Your task to perform on an android device: turn off improve location accuracy Image 0: 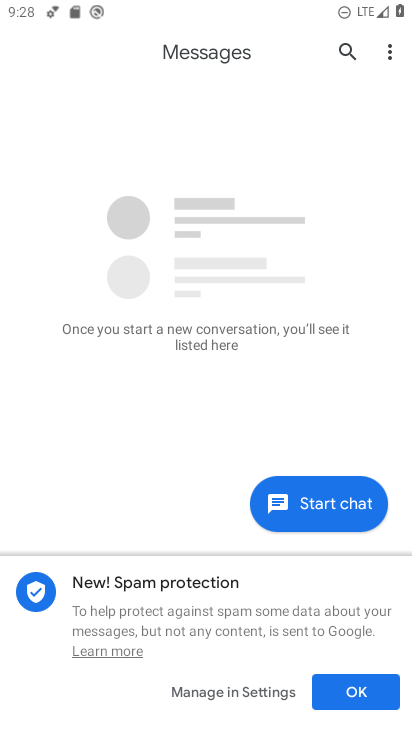
Step 0: press home button
Your task to perform on an android device: turn off improve location accuracy Image 1: 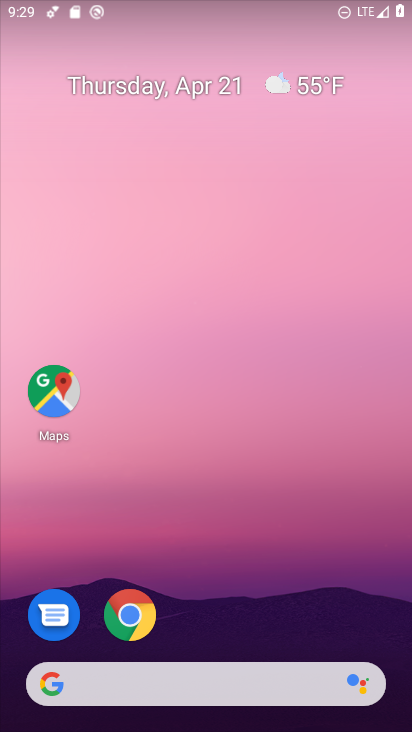
Step 1: drag from (334, 502) to (381, 29)
Your task to perform on an android device: turn off improve location accuracy Image 2: 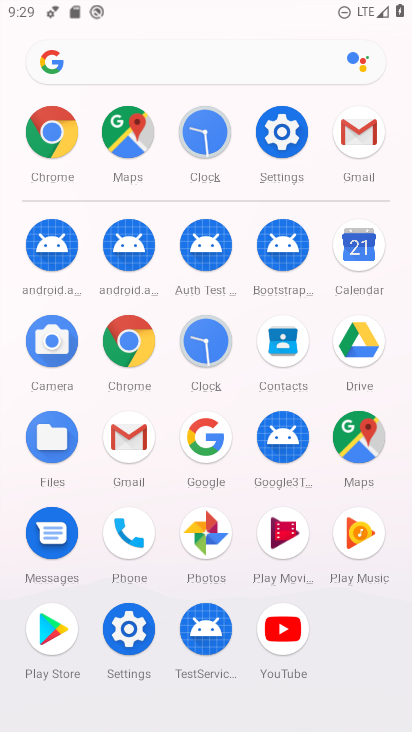
Step 2: click (282, 111)
Your task to perform on an android device: turn off improve location accuracy Image 3: 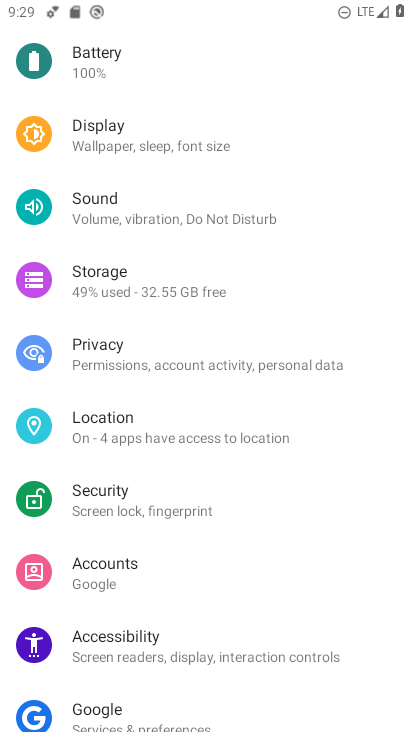
Step 3: click (89, 410)
Your task to perform on an android device: turn off improve location accuracy Image 4: 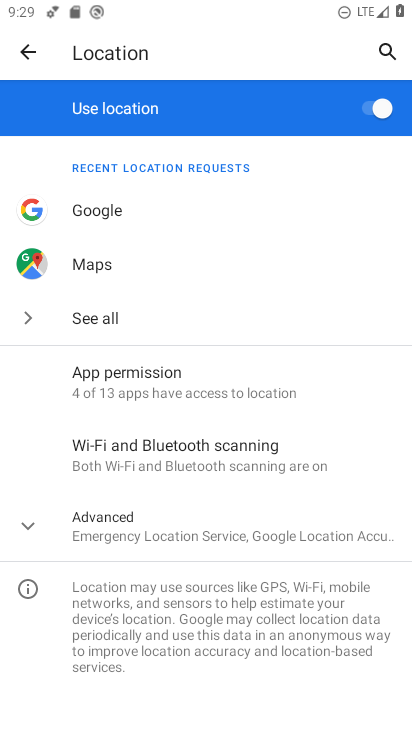
Step 4: drag from (135, 605) to (184, 205)
Your task to perform on an android device: turn off improve location accuracy Image 5: 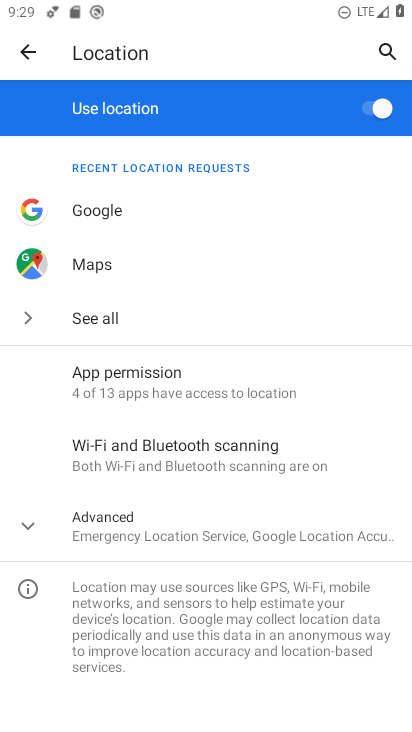
Step 5: click (135, 524)
Your task to perform on an android device: turn off improve location accuracy Image 6: 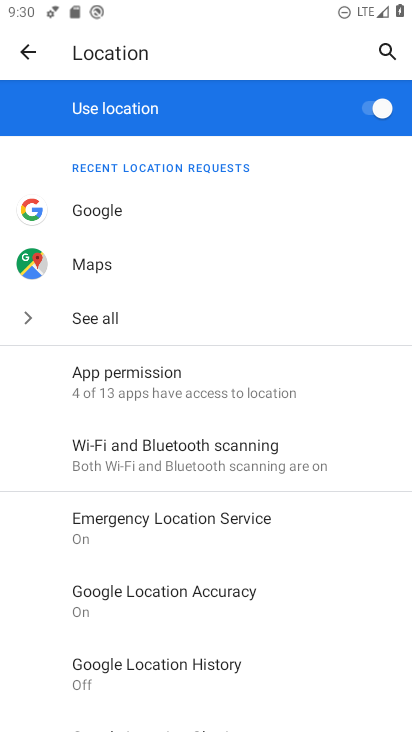
Step 6: click (219, 599)
Your task to perform on an android device: turn off improve location accuracy Image 7: 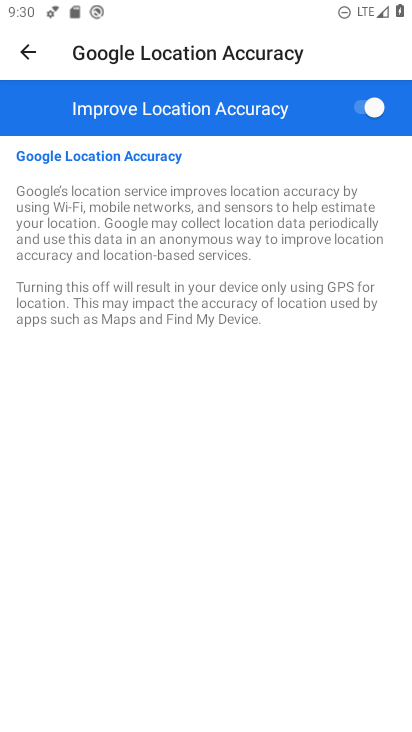
Step 7: click (359, 113)
Your task to perform on an android device: turn off improve location accuracy Image 8: 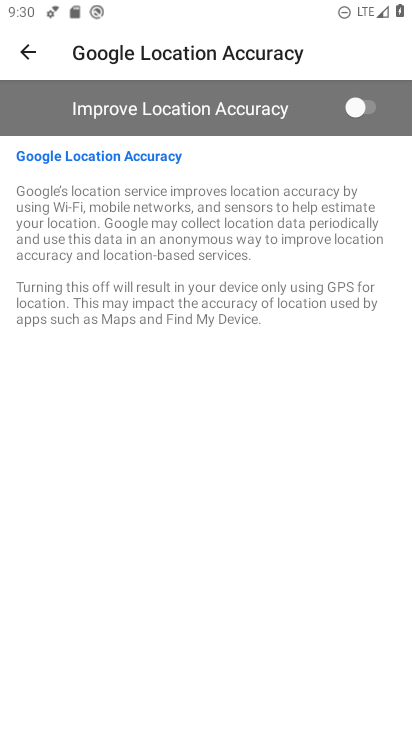
Step 8: task complete